Your task to perform on an android device: Go to calendar. Show me events next week Image 0: 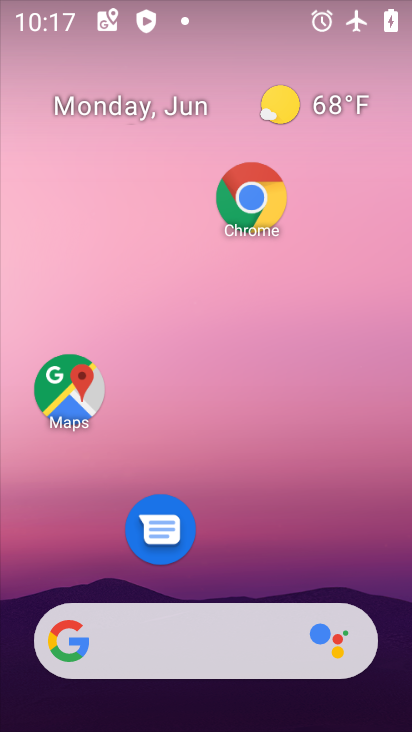
Step 0: drag from (220, 561) to (221, 207)
Your task to perform on an android device: Go to calendar. Show me events next week Image 1: 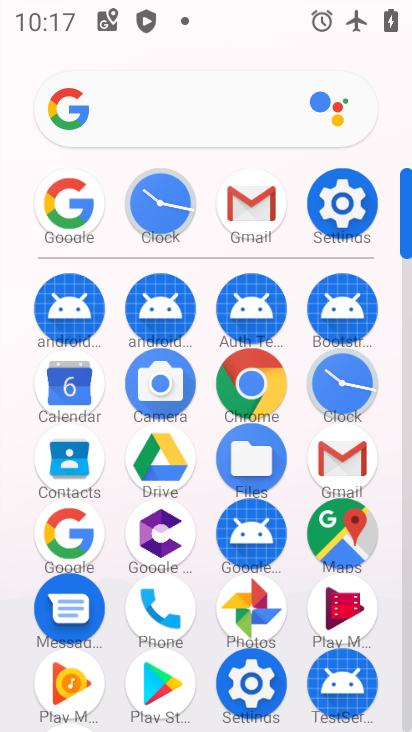
Step 1: click (87, 386)
Your task to perform on an android device: Go to calendar. Show me events next week Image 2: 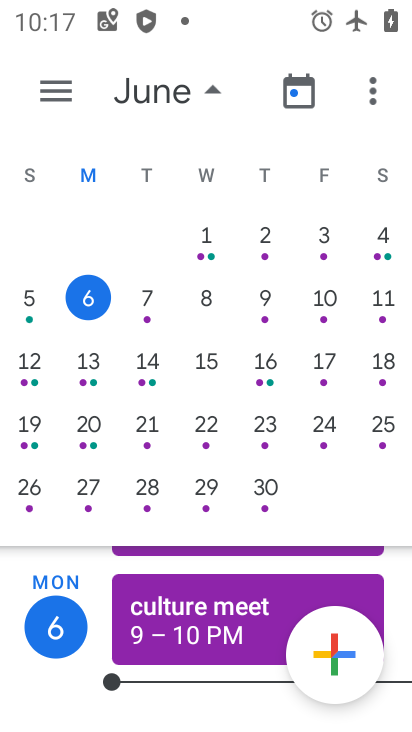
Step 2: click (46, 362)
Your task to perform on an android device: Go to calendar. Show me events next week Image 3: 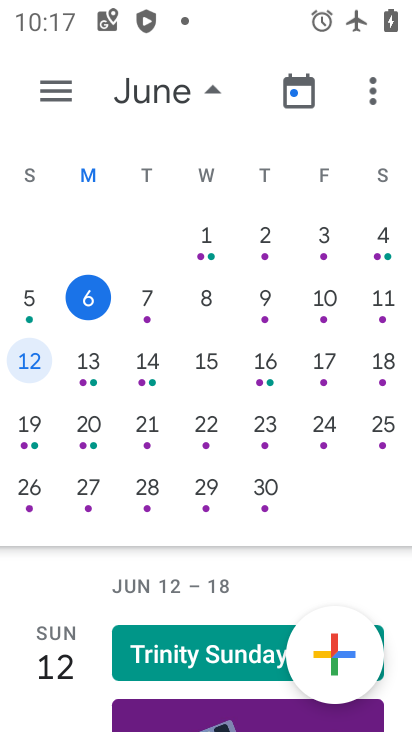
Step 3: task complete